Your task to perform on an android device: What's the latest video from GameXplain? Image 0: 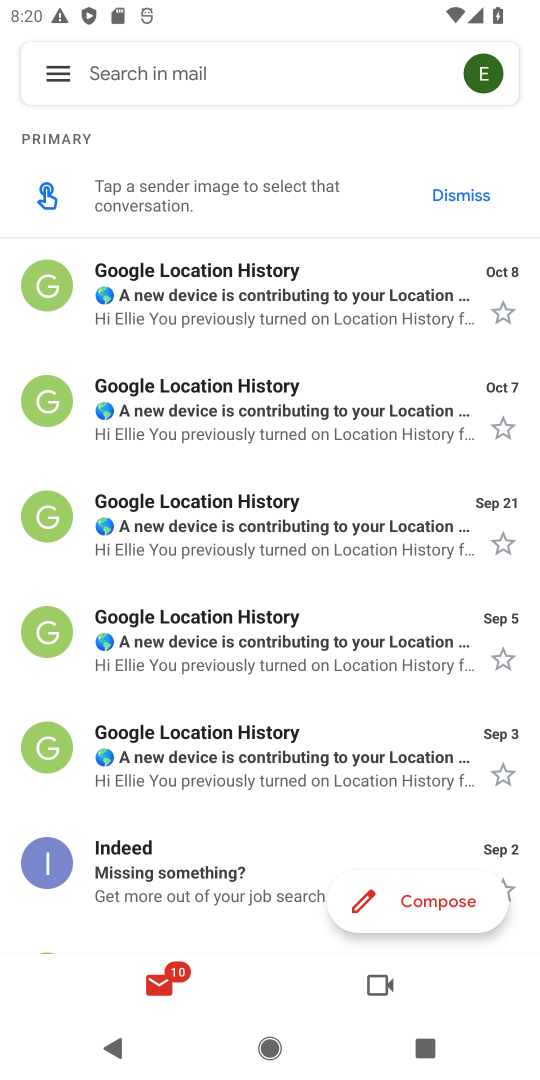
Step 0: press home button
Your task to perform on an android device: What's the latest video from GameXplain? Image 1: 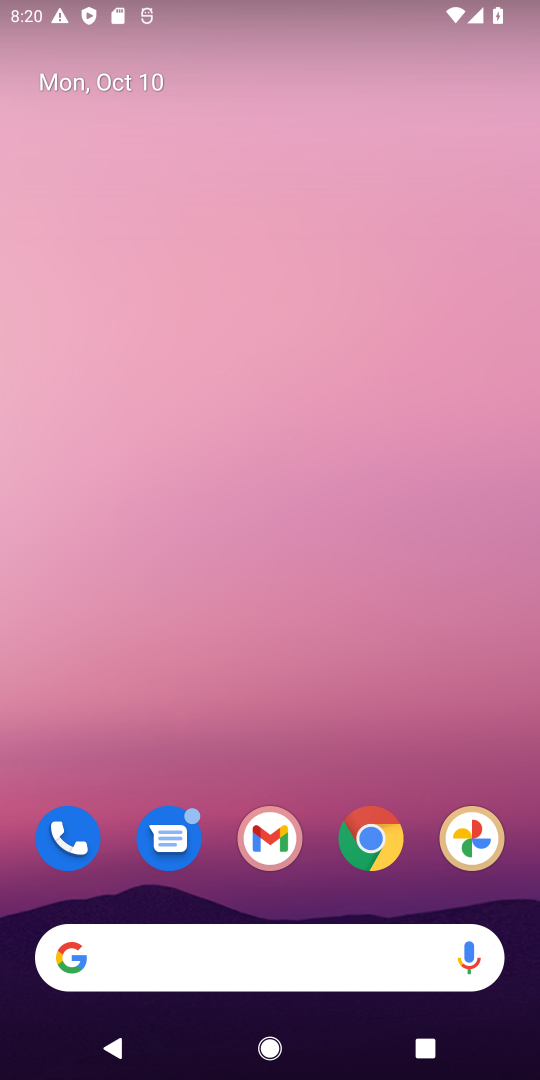
Step 1: drag from (305, 911) to (316, 172)
Your task to perform on an android device: What's the latest video from GameXplain? Image 2: 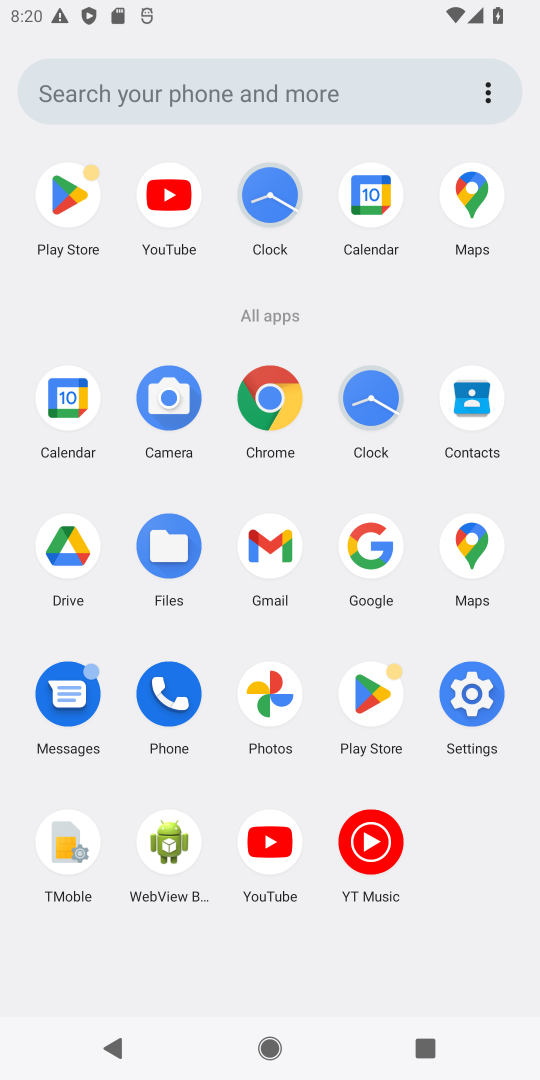
Step 2: click (374, 541)
Your task to perform on an android device: What's the latest video from GameXplain? Image 3: 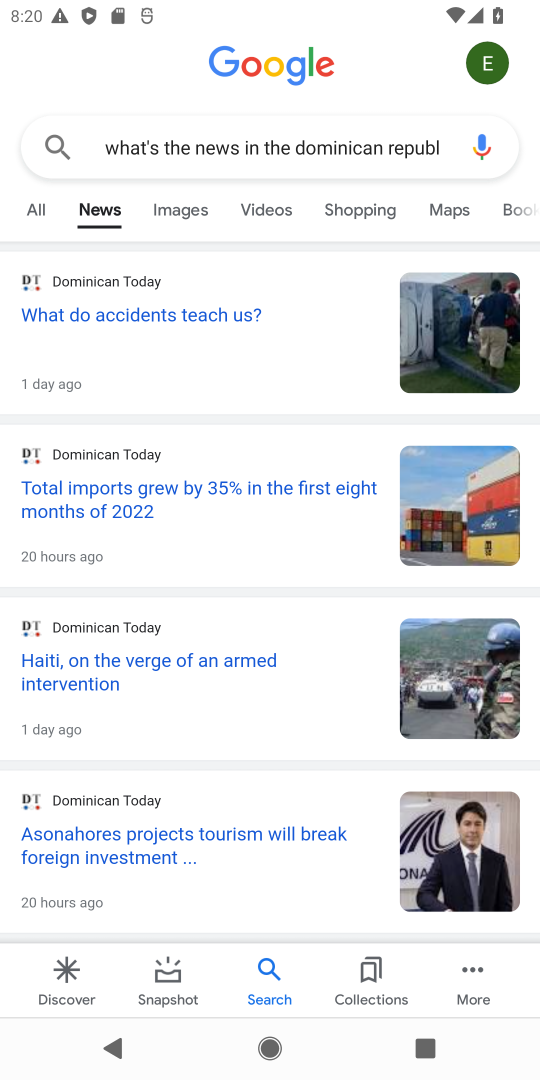
Step 3: click (378, 137)
Your task to perform on an android device: What's the latest video from GameXplain? Image 4: 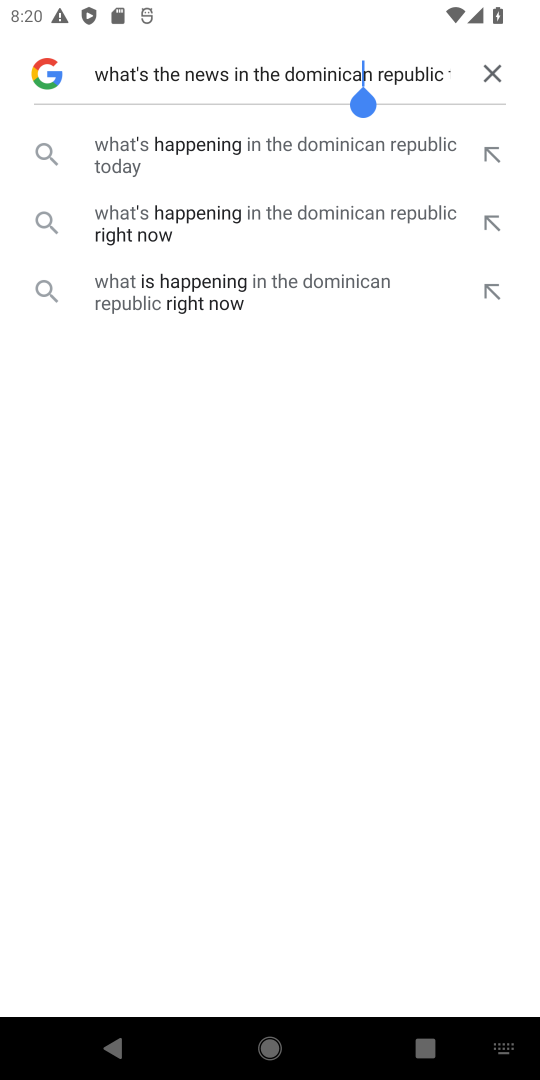
Step 4: click (490, 74)
Your task to perform on an android device: What's the latest video from GameXplain? Image 5: 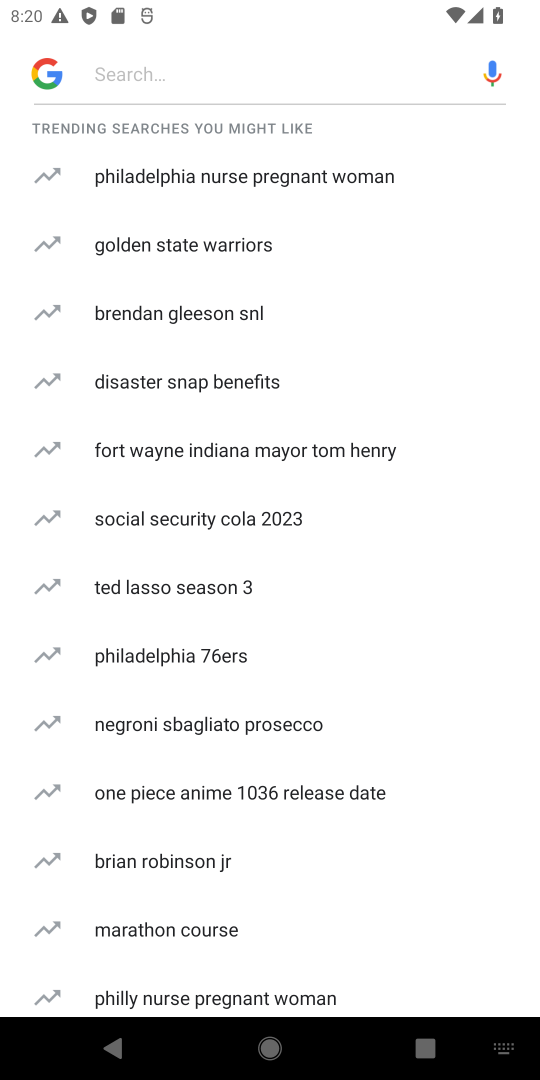
Step 5: type "What's the latest video from GameXplain?"
Your task to perform on an android device: What's the latest video from GameXplain? Image 6: 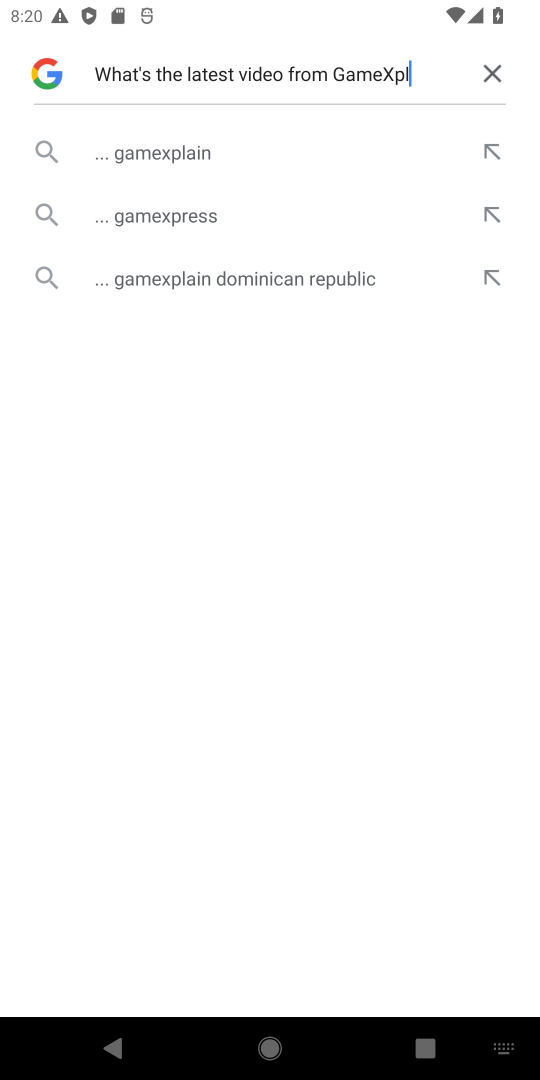
Step 6: type ""
Your task to perform on an android device: What's the latest video from GameXplain? Image 7: 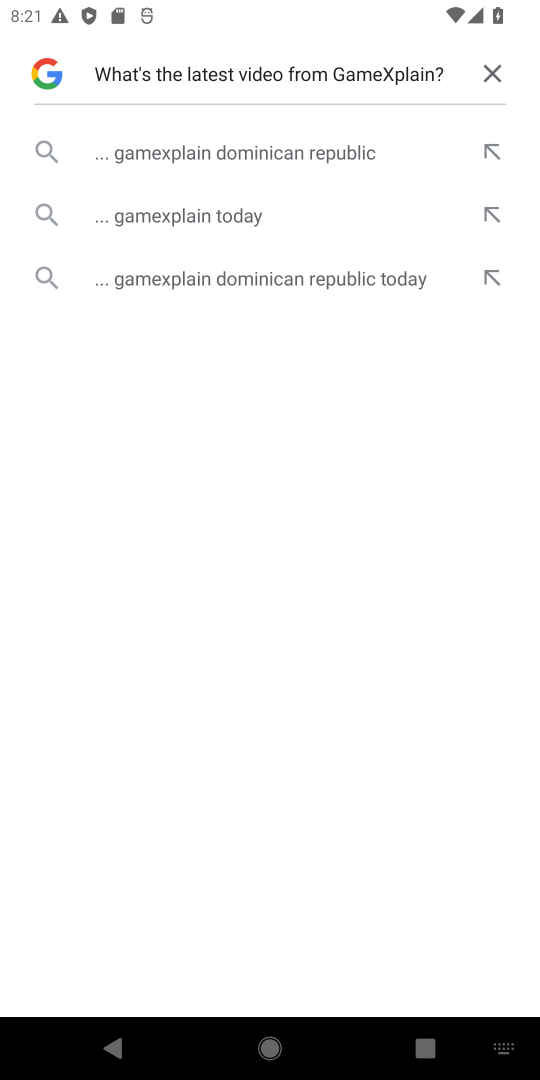
Step 7: click (185, 222)
Your task to perform on an android device: What's the latest video from GameXplain? Image 8: 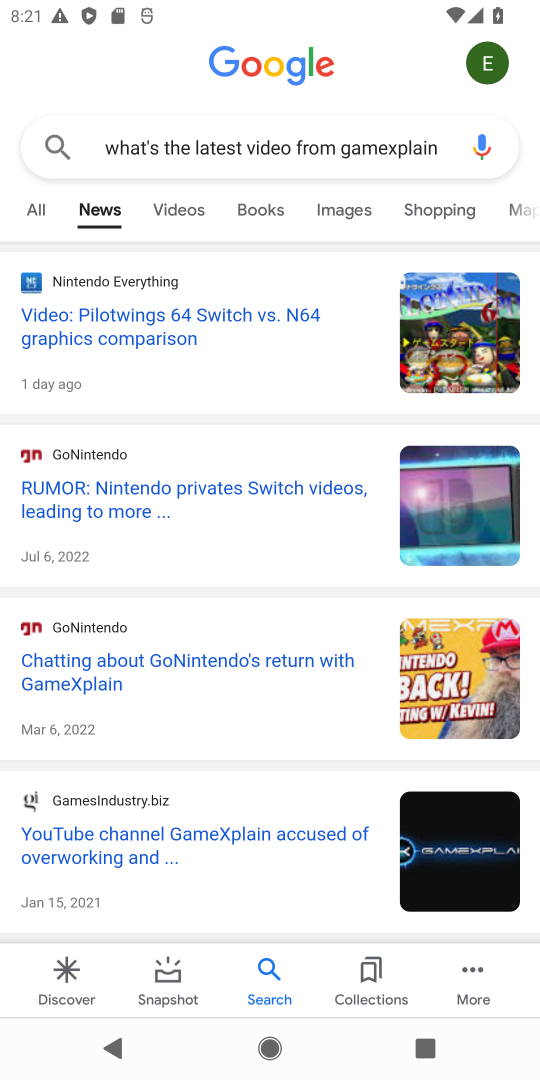
Step 8: click (43, 204)
Your task to perform on an android device: What's the latest video from GameXplain? Image 9: 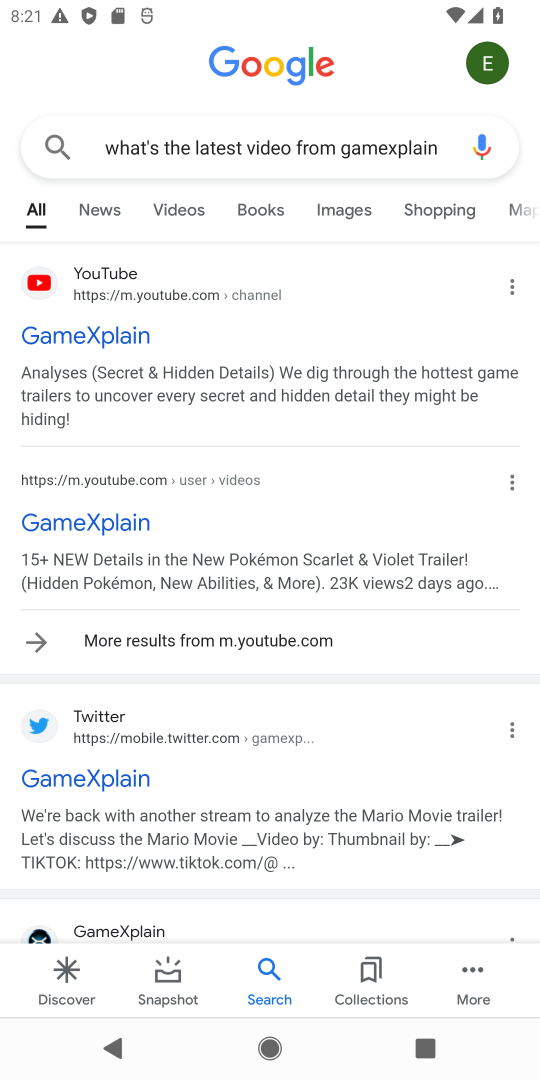
Step 9: click (121, 333)
Your task to perform on an android device: What's the latest video from GameXplain? Image 10: 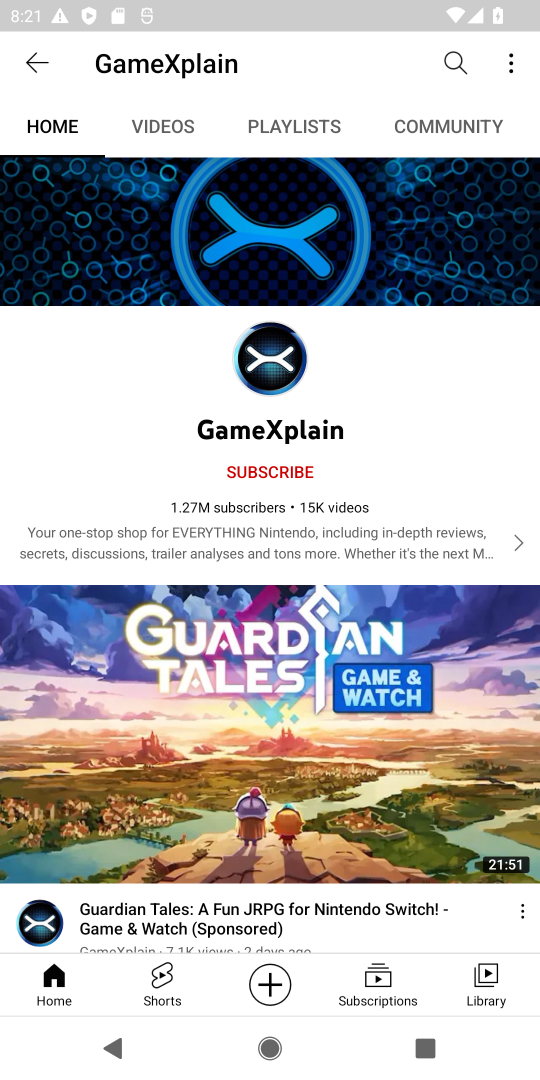
Step 10: drag from (261, 871) to (311, 454)
Your task to perform on an android device: What's the latest video from GameXplain? Image 11: 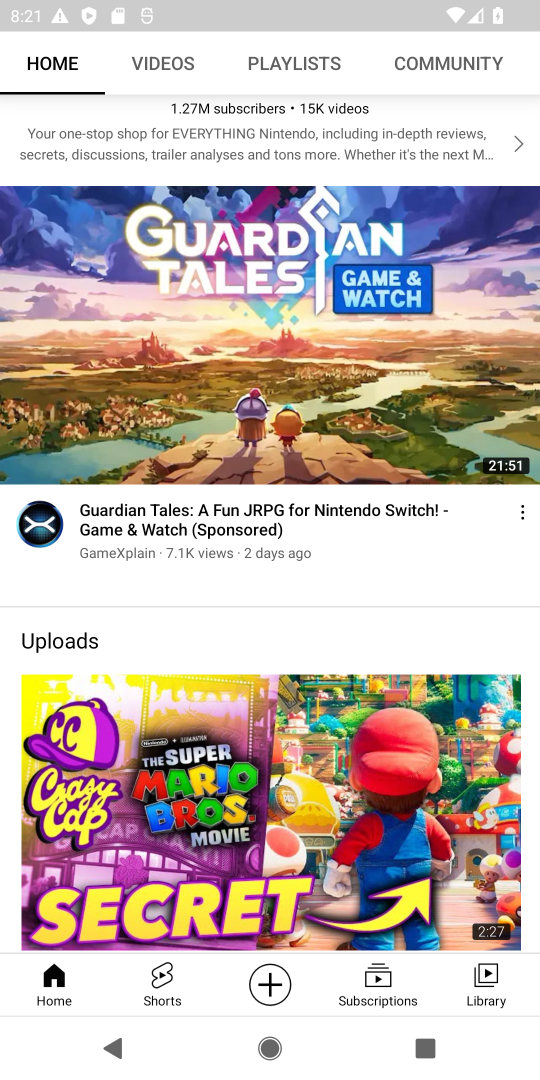
Step 11: click (158, 66)
Your task to perform on an android device: What's the latest video from GameXplain? Image 12: 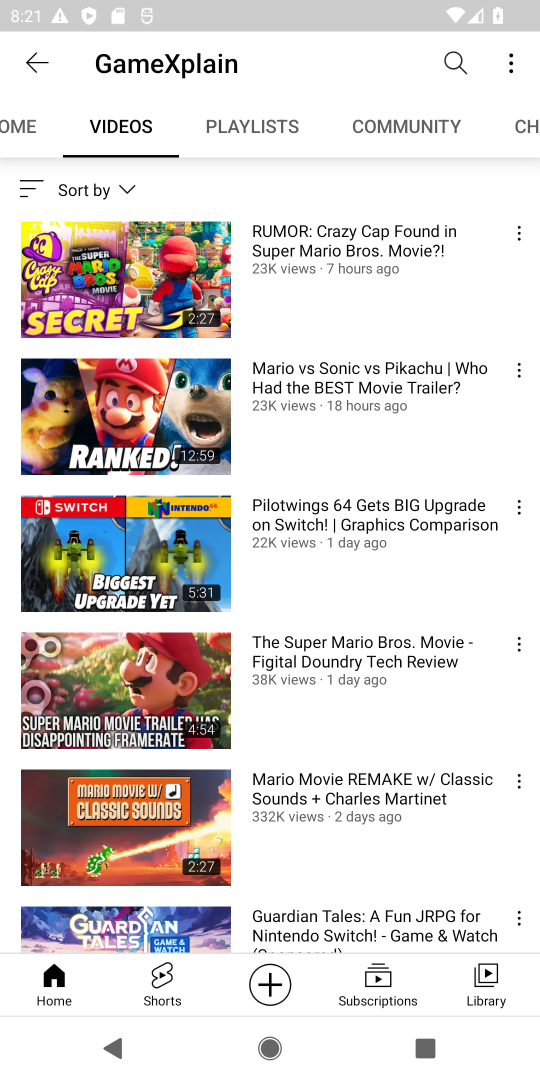
Step 12: task complete